Your task to perform on an android device: toggle priority inbox in the gmail app Image 0: 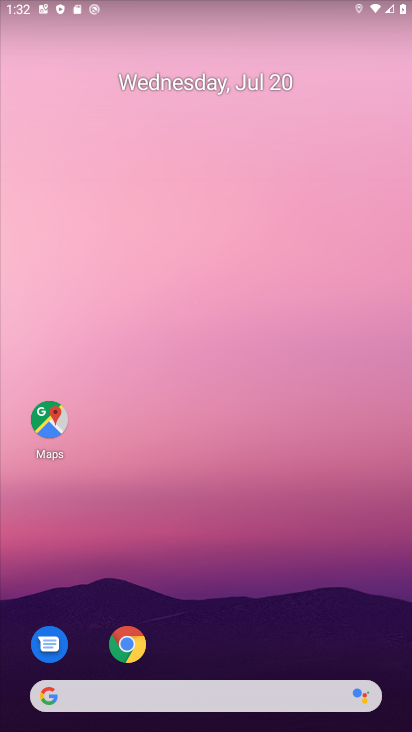
Step 0: drag from (226, 651) to (231, 128)
Your task to perform on an android device: toggle priority inbox in the gmail app Image 1: 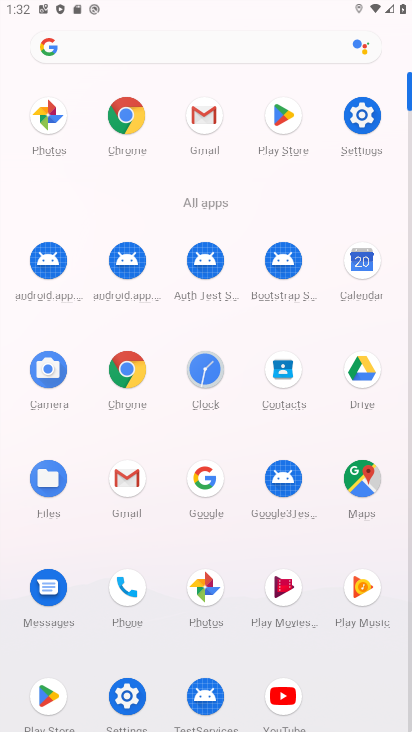
Step 1: click (196, 124)
Your task to perform on an android device: toggle priority inbox in the gmail app Image 2: 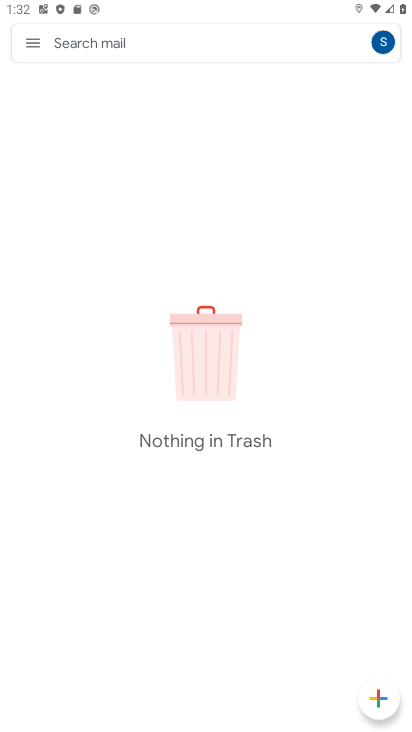
Step 2: click (31, 41)
Your task to perform on an android device: toggle priority inbox in the gmail app Image 3: 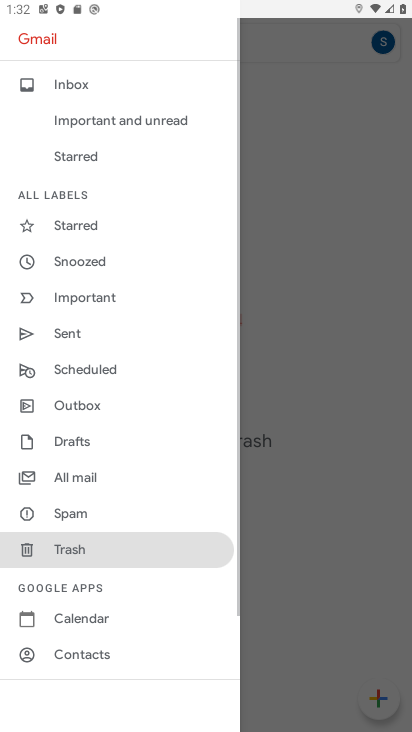
Step 3: drag from (182, 615) to (190, 41)
Your task to perform on an android device: toggle priority inbox in the gmail app Image 4: 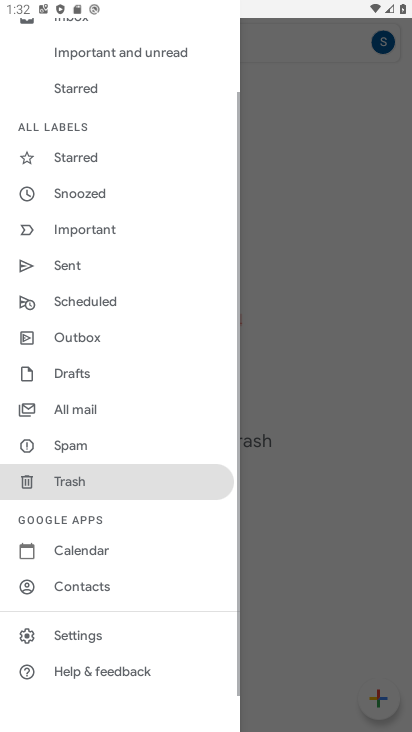
Step 4: drag from (199, 431) to (159, 29)
Your task to perform on an android device: toggle priority inbox in the gmail app Image 5: 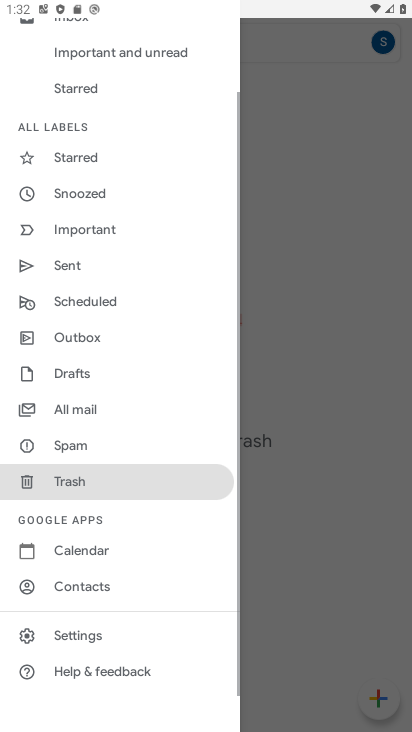
Step 5: click (66, 631)
Your task to perform on an android device: toggle priority inbox in the gmail app Image 6: 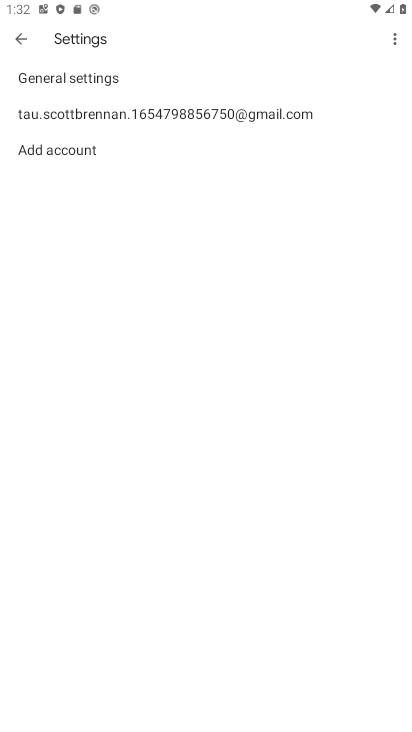
Step 6: click (99, 116)
Your task to perform on an android device: toggle priority inbox in the gmail app Image 7: 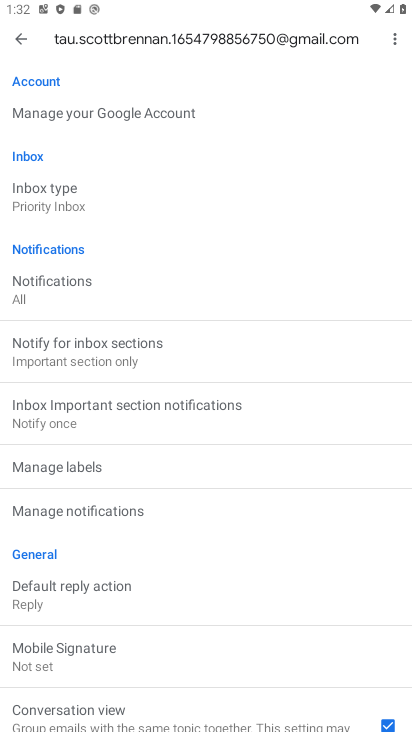
Step 7: click (53, 196)
Your task to perform on an android device: toggle priority inbox in the gmail app Image 8: 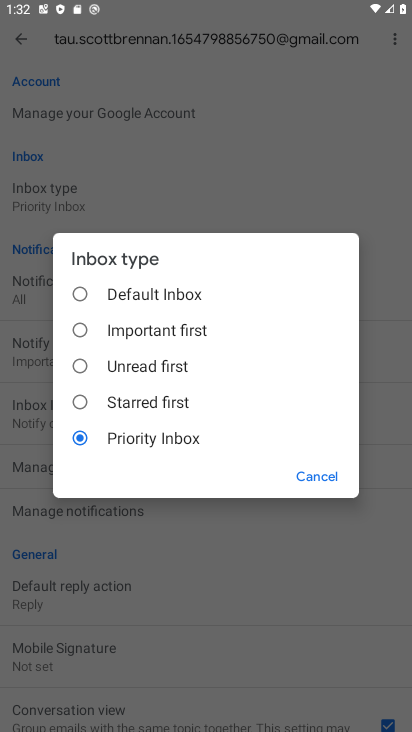
Step 8: click (80, 290)
Your task to perform on an android device: toggle priority inbox in the gmail app Image 9: 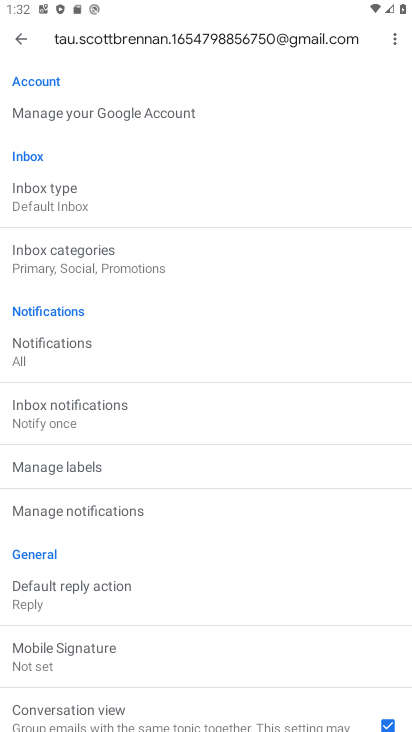
Step 9: task complete